Your task to perform on an android device: Search for logitech g502 on ebay.com, select the first entry, add it to the cart, then select checkout. Image 0: 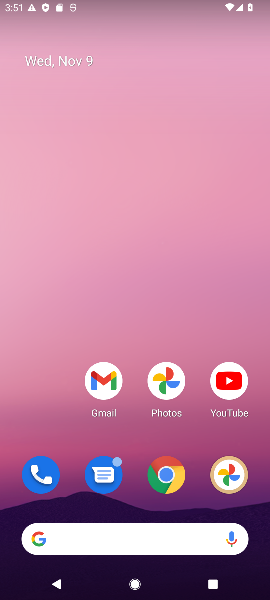
Step 0: drag from (83, 438) to (0, 119)
Your task to perform on an android device: Search for logitech g502 on ebay.com, select the first entry, add it to the cart, then select checkout. Image 1: 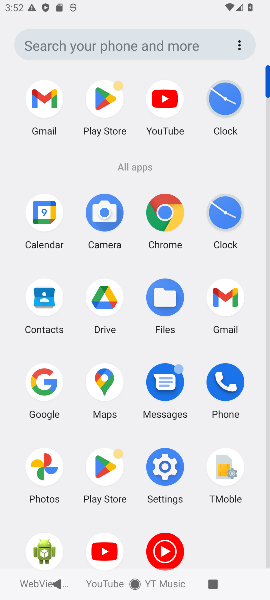
Step 1: click (171, 201)
Your task to perform on an android device: Search for logitech g502 on ebay.com, select the first entry, add it to the cart, then select checkout. Image 2: 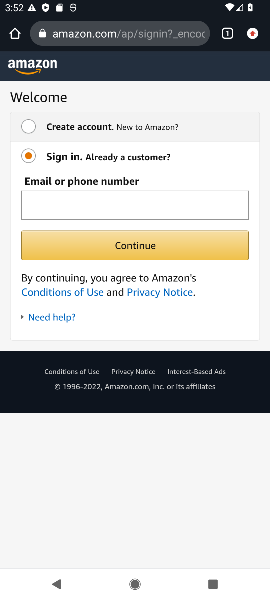
Step 2: click (102, 25)
Your task to perform on an android device: Search for logitech g502 on ebay.com, select the first entry, add it to the cart, then select checkout. Image 3: 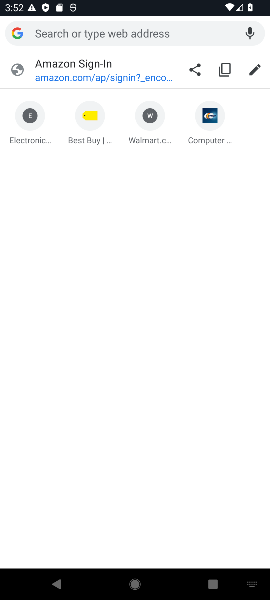
Step 3: type "ebay.com"
Your task to perform on an android device: Search for logitech g502 on ebay.com, select the first entry, add it to the cart, then select checkout. Image 4: 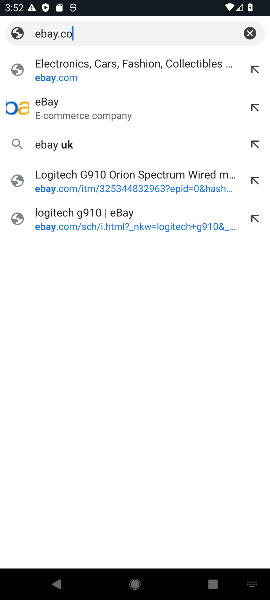
Step 4: press enter
Your task to perform on an android device: Search for logitech g502 on ebay.com, select the first entry, add it to the cart, then select checkout. Image 5: 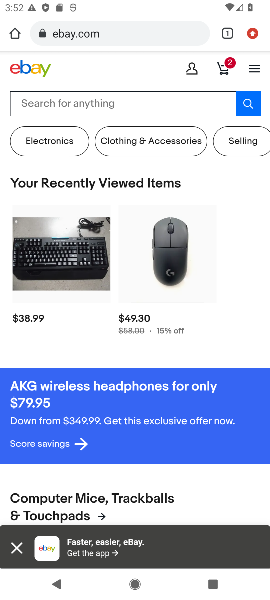
Step 5: click (55, 104)
Your task to perform on an android device: Search for logitech g502 on ebay.com, select the first entry, add it to the cart, then select checkout. Image 6: 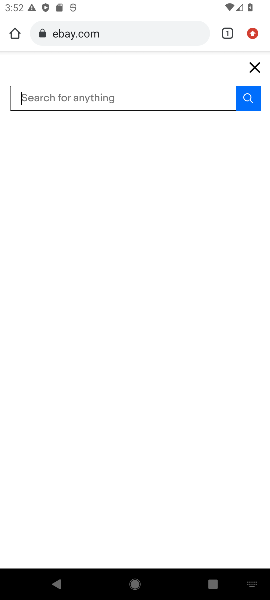
Step 6: type "logitech g502 "
Your task to perform on an android device: Search for logitech g502 on ebay.com, select the first entry, add it to the cart, then select checkout. Image 7: 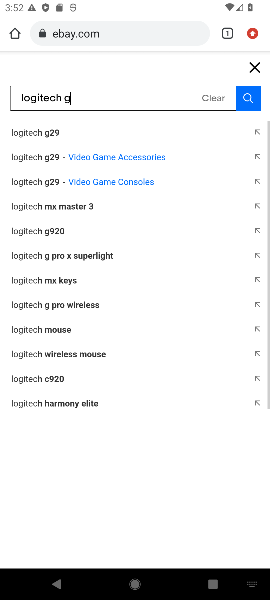
Step 7: press enter
Your task to perform on an android device: Search for logitech g502 on ebay.com, select the first entry, add it to the cart, then select checkout. Image 8: 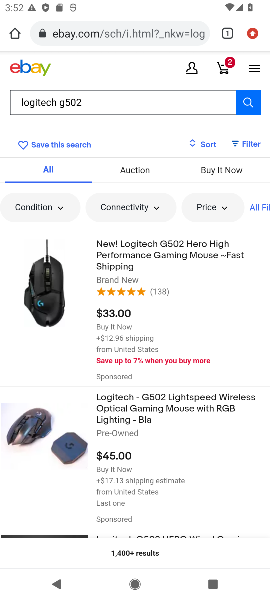
Step 8: click (156, 244)
Your task to perform on an android device: Search for logitech g502 on ebay.com, select the first entry, add it to the cart, then select checkout. Image 9: 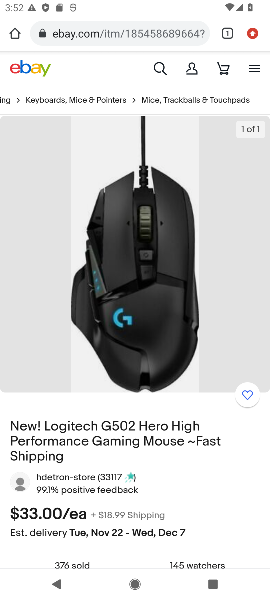
Step 9: drag from (119, 506) to (138, 202)
Your task to perform on an android device: Search for logitech g502 on ebay.com, select the first entry, add it to the cart, then select checkout. Image 10: 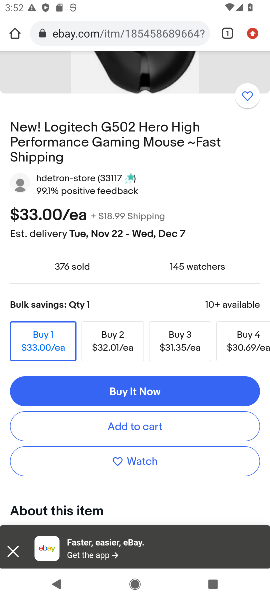
Step 10: click (146, 433)
Your task to perform on an android device: Search for logitech g502 on ebay.com, select the first entry, add it to the cart, then select checkout. Image 11: 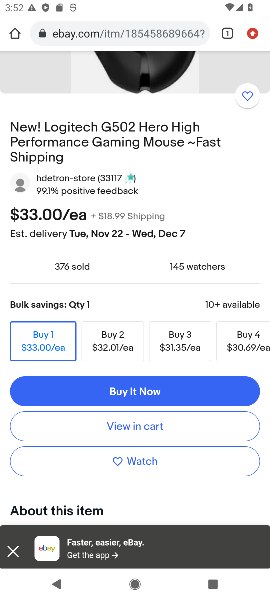
Step 11: click (147, 432)
Your task to perform on an android device: Search for logitech g502 on ebay.com, select the first entry, add it to the cart, then select checkout. Image 12: 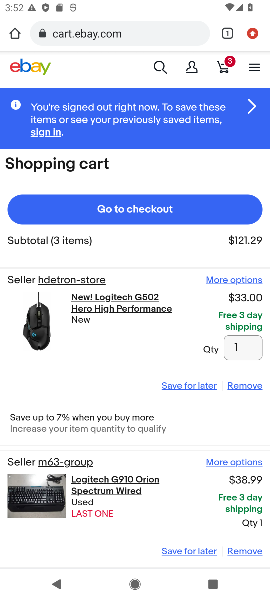
Step 12: click (116, 191)
Your task to perform on an android device: Search for logitech g502 on ebay.com, select the first entry, add it to the cart, then select checkout. Image 13: 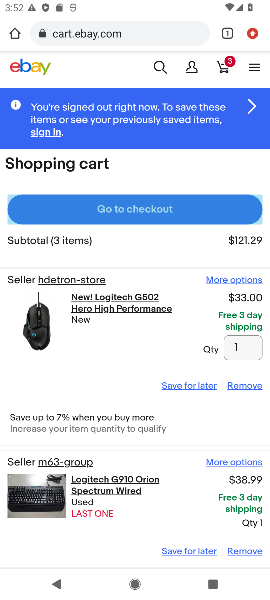
Step 13: click (118, 210)
Your task to perform on an android device: Search for logitech g502 on ebay.com, select the first entry, add it to the cart, then select checkout. Image 14: 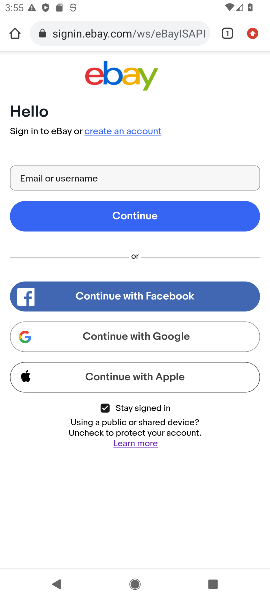
Step 14: task complete